Your task to perform on an android device: visit the assistant section in the google photos Image 0: 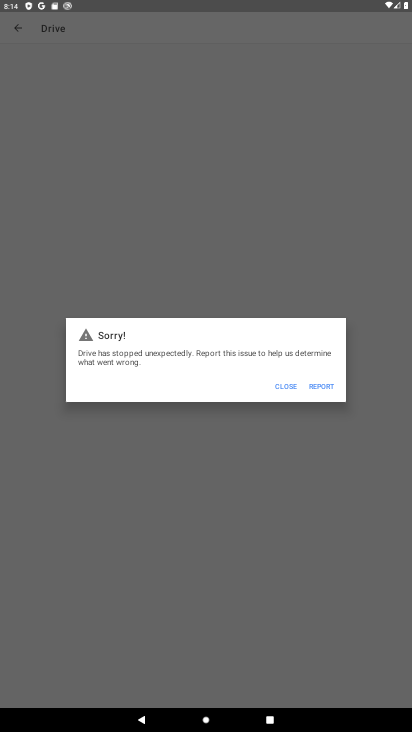
Step 0: press home button
Your task to perform on an android device: visit the assistant section in the google photos Image 1: 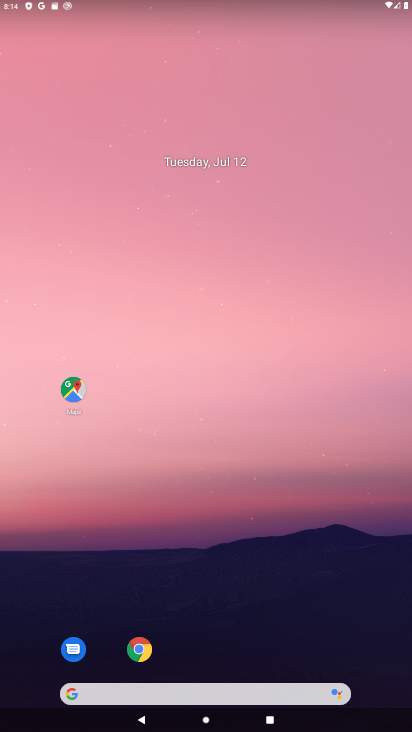
Step 1: drag from (293, 661) to (233, 54)
Your task to perform on an android device: visit the assistant section in the google photos Image 2: 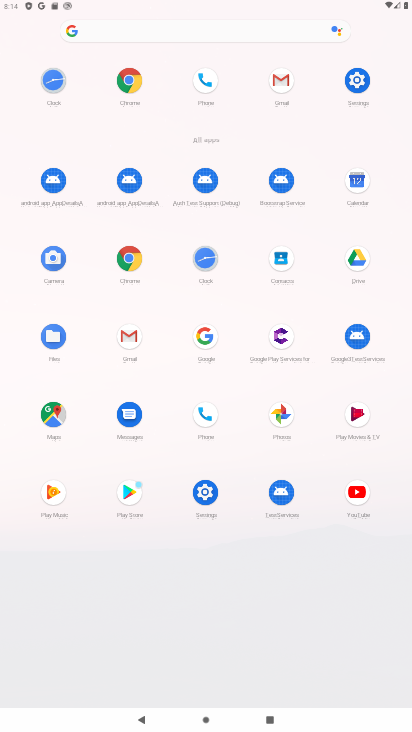
Step 2: click (274, 407)
Your task to perform on an android device: visit the assistant section in the google photos Image 3: 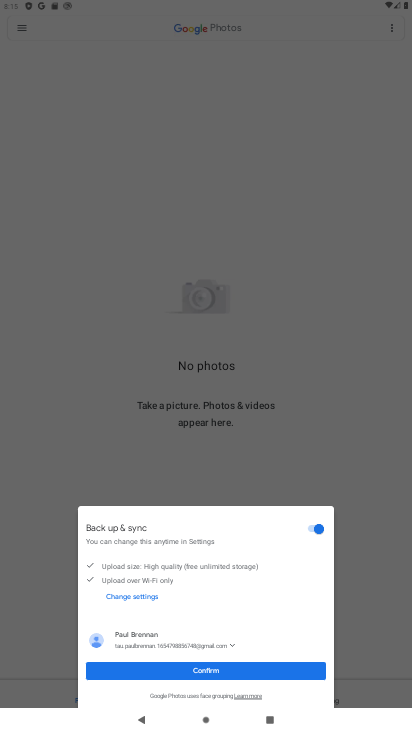
Step 3: click (210, 667)
Your task to perform on an android device: visit the assistant section in the google photos Image 4: 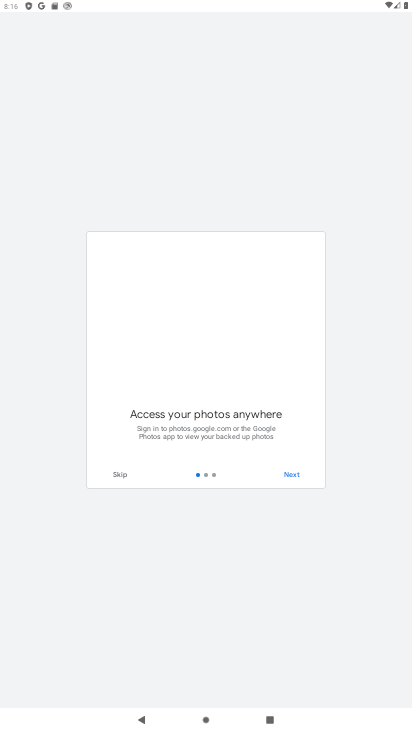
Step 4: click (296, 474)
Your task to perform on an android device: visit the assistant section in the google photos Image 5: 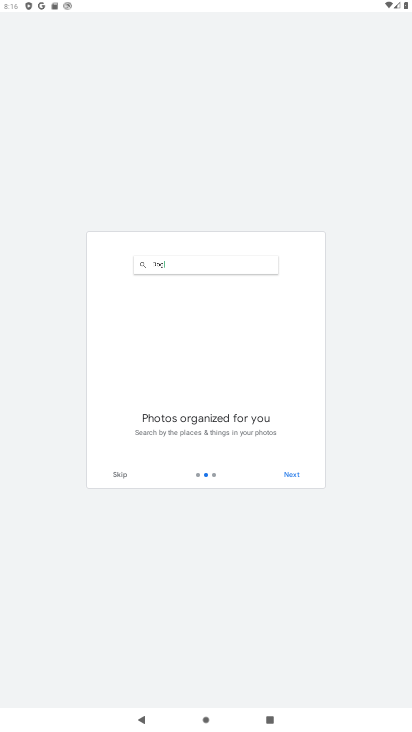
Step 5: click (296, 474)
Your task to perform on an android device: visit the assistant section in the google photos Image 6: 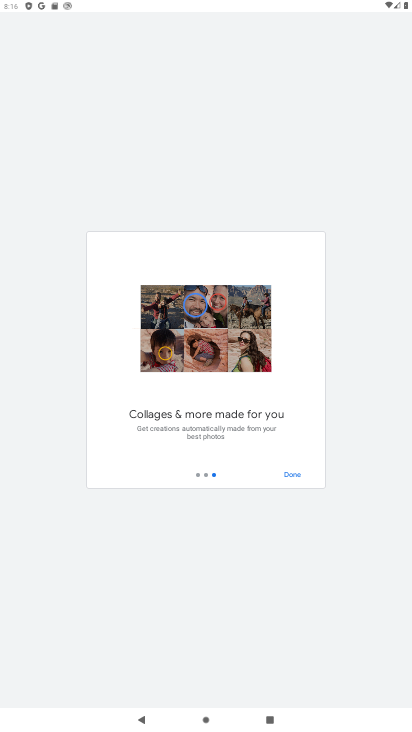
Step 6: click (296, 474)
Your task to perform on an android device: visit the assistant section in the google photos Image 7: 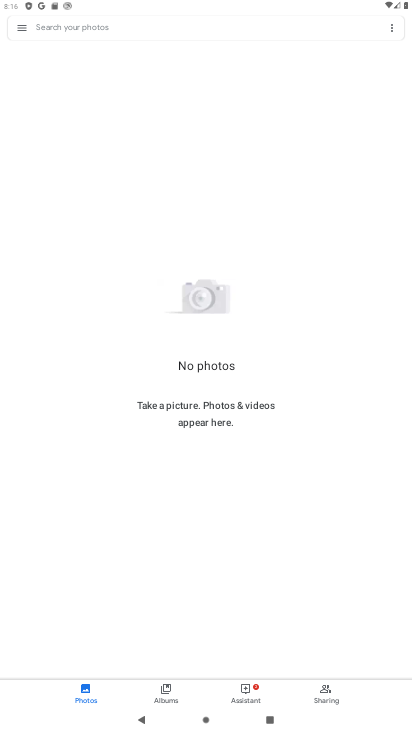
Step 7: click (253, 687)
Your task to perform on an android device: visit the assistant section in the google photos Image 8: 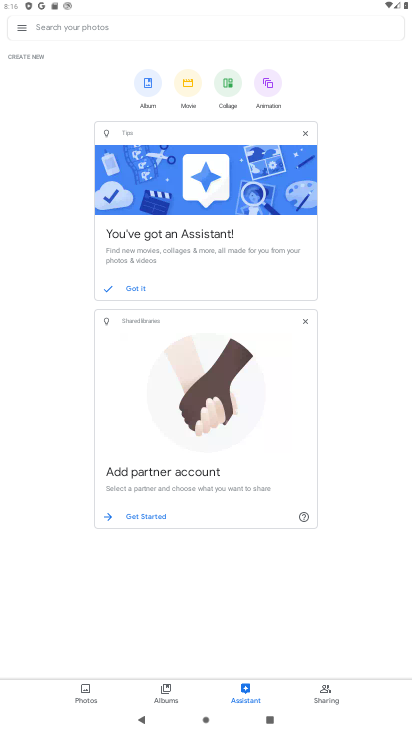
Step 8: task complete